Your task to perform on an android device: allow cookies in the chrome app Image 0: 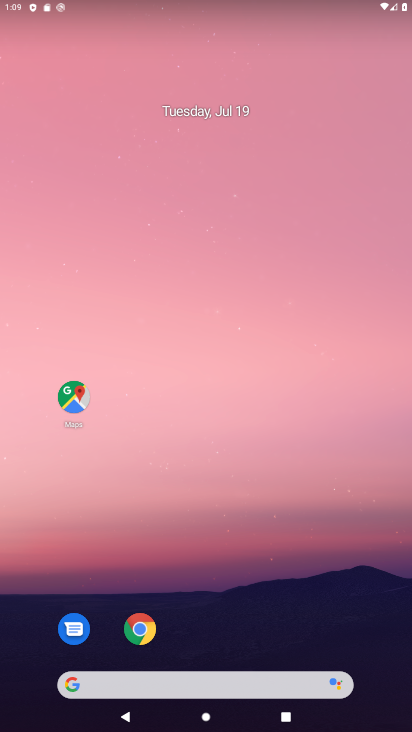
Step 0: click (135, 623)
Your task to perform on an android device: allow cookies in the chrome app Image 1: 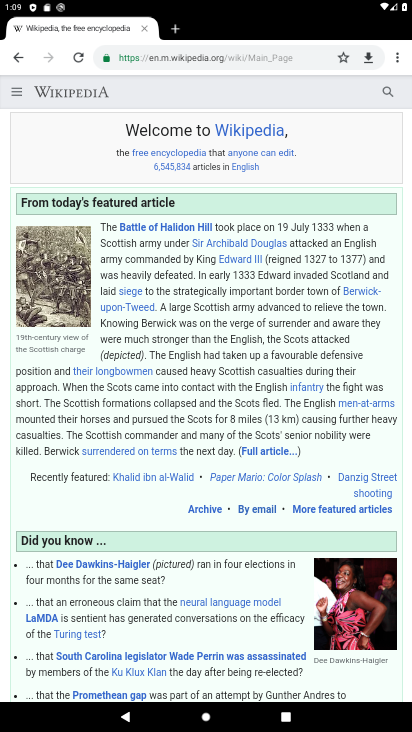
Step 1: click (402, 52)
Your task to perform on an android device: allow cookies in the chrome app Image 2: 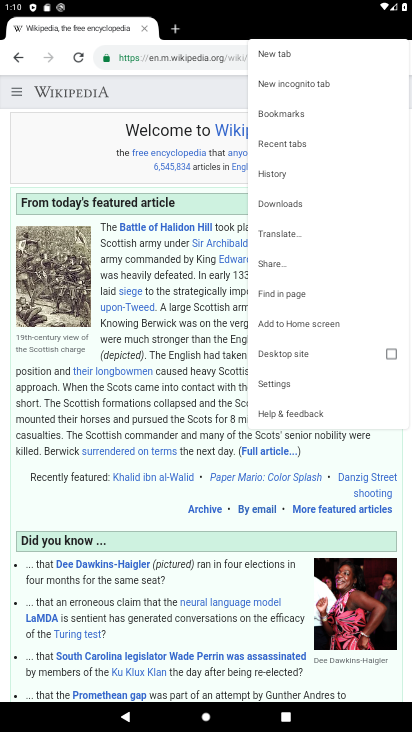
Step 2: click (319, 379)
Your task to perform on an android device: allow cookies in the chrome app Image 3: 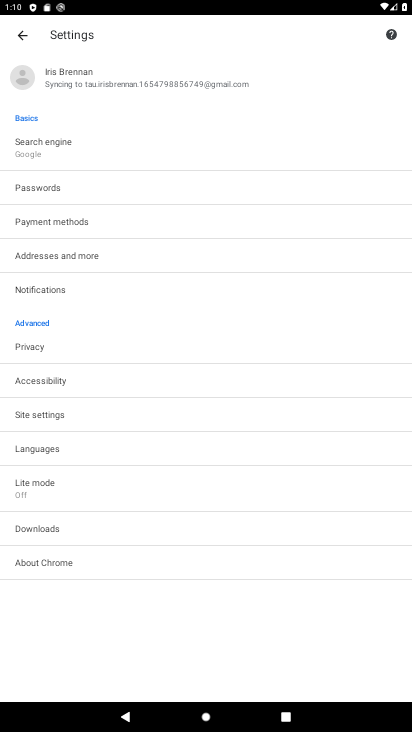
Step 3: click (55, 414)
Your task to perform on an android device: allow cookies in the chrome app Image 4: 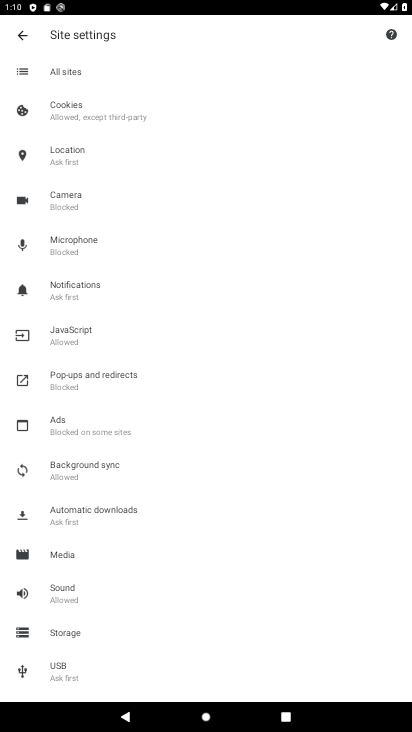
Step 4: click (101, 113)
Your task to perform on an android device: allow cookies in the chrome app Image 5: 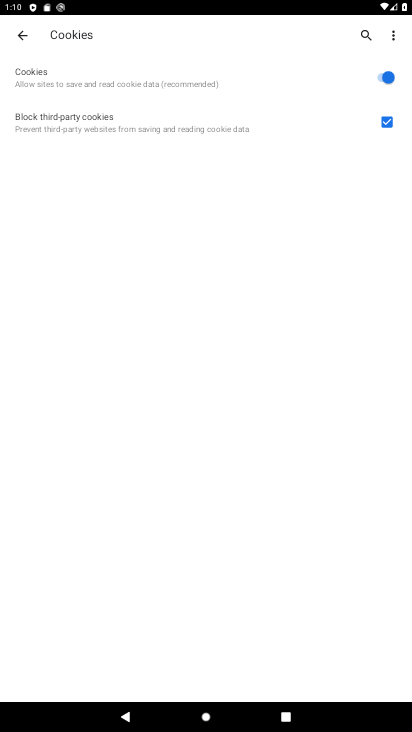
Step 5: task complete